Your task to perform on an android device: Open the calendar app, open the side menu, and click the "Day" option Image 0: 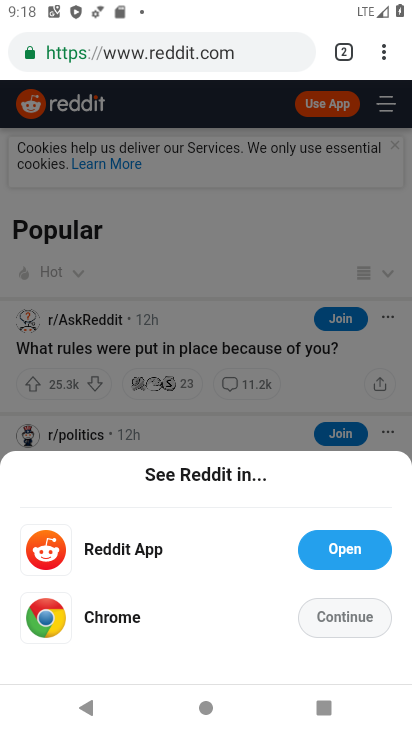
Step 0: press home button
Your task to perform on an android device: Open the calendar app, open the side menu, and click the "Day" option Image 1: 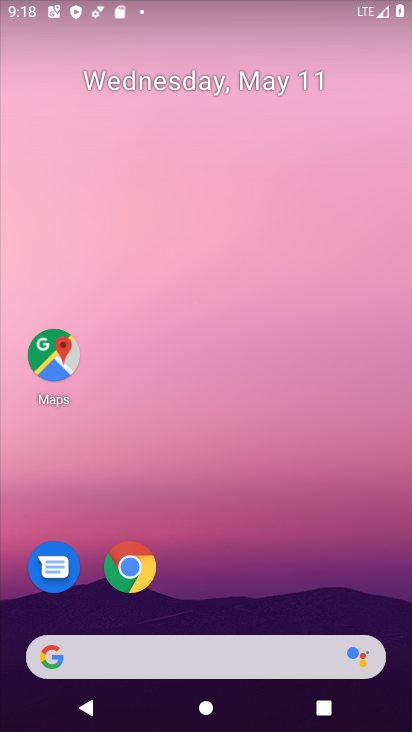
Step 1: drag from (251, 703) to (288, 11)
Your task to perform on an android device: Open the calendar app, open the side menu, and click the "Day" option Image 2: 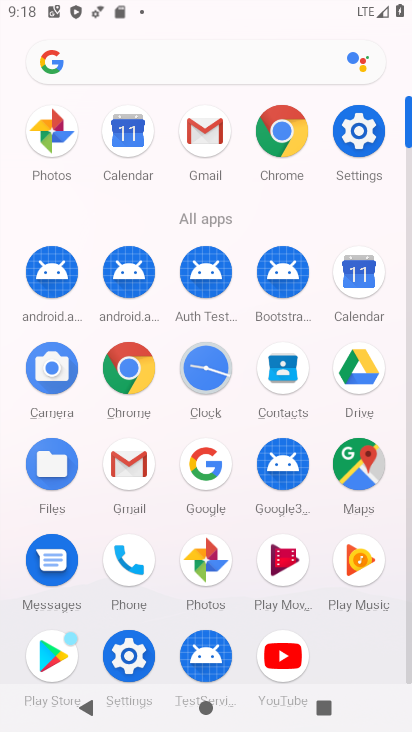
Step 2: click (357, 288)
Your task to perform on an android device: Open the calendar app, open the side menu, and click the "Day" option Image 3: 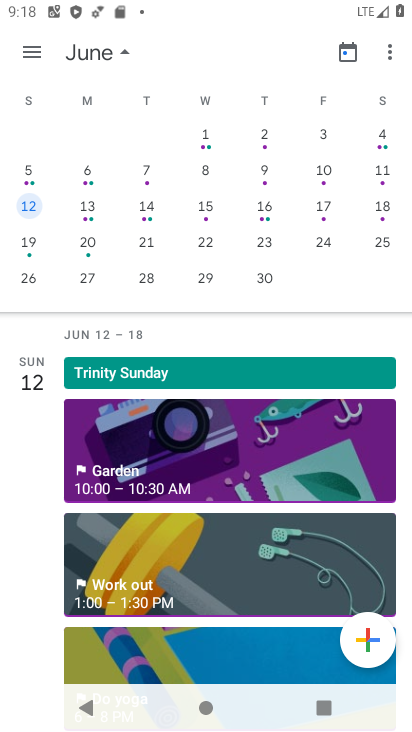
Step 3: click (30, 44)
Your task to perform on an android device: Open the calendar app, open the side menu, and click the "Day" option Image 4: 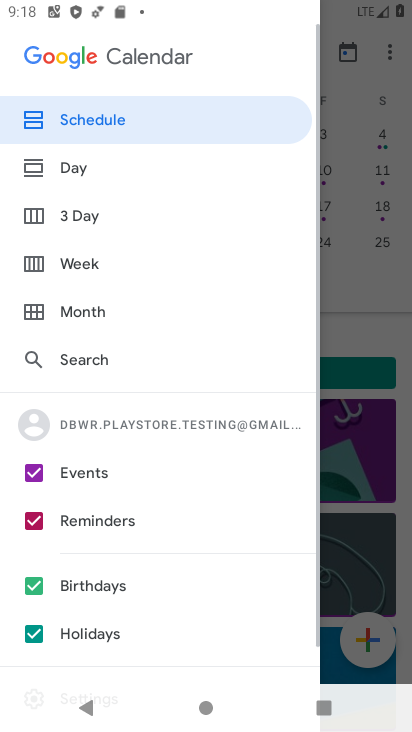
Step 4: click (101, 170)
Your task to perform on an android device: Open the calendar app, open the side menu, and click the "Day" option Image 5: 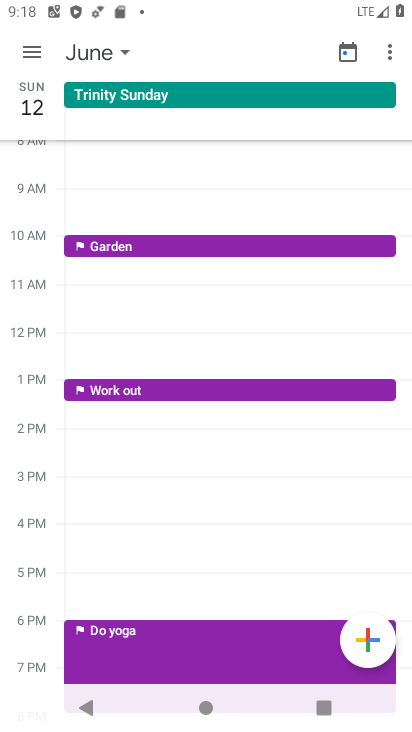
Step 5: task complete